Your task to perform on an android device: check the backup settings in the google photos Image 0: 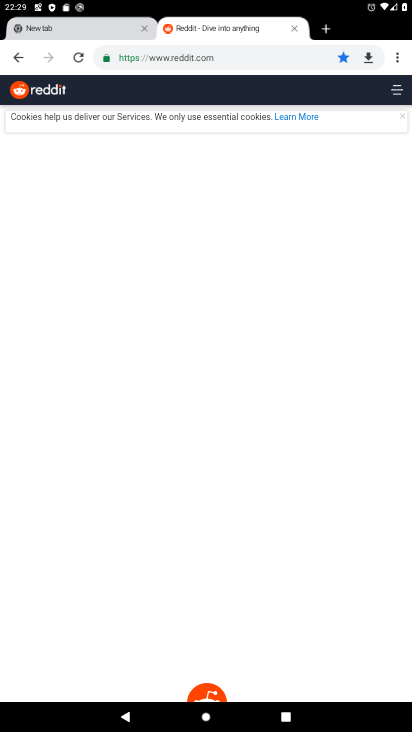
Step 0: drag from (236, 637) to (389, 197)
Your task to perform on an android device: check the backup settings in the google photos Image 1: 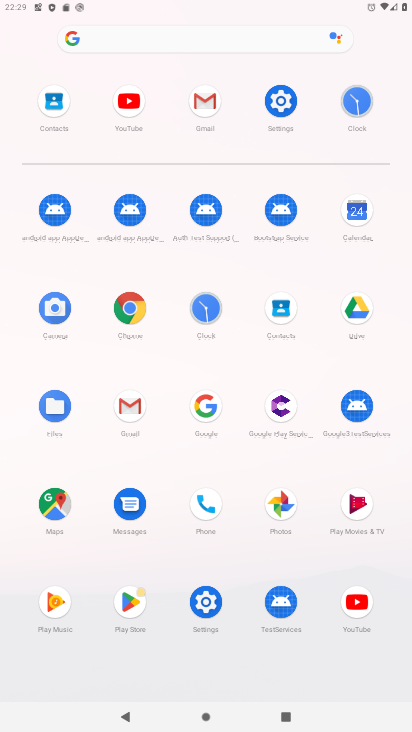
Step 1: click (283, 506)
Your task to perform on an android device: check the backup settings in the google photos Image 2: 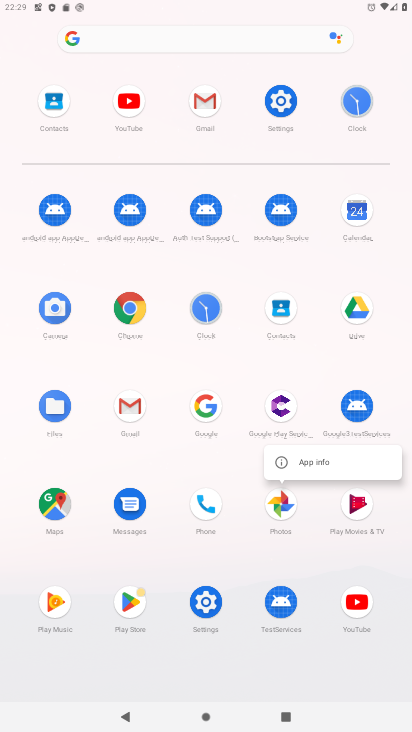
Step 2: click (311, 453)
Your task to perform on an android device: check the backup settings in the google photos Image 3: 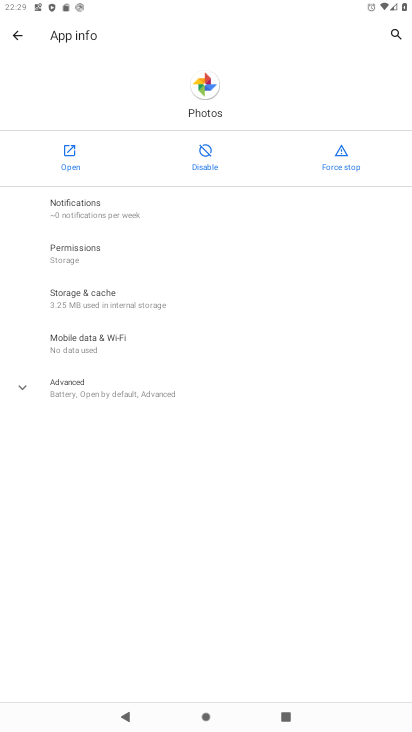
Step 3: click (50, 156)
Your task to perform on an android device: check the backup settings in the google photos Image 4: 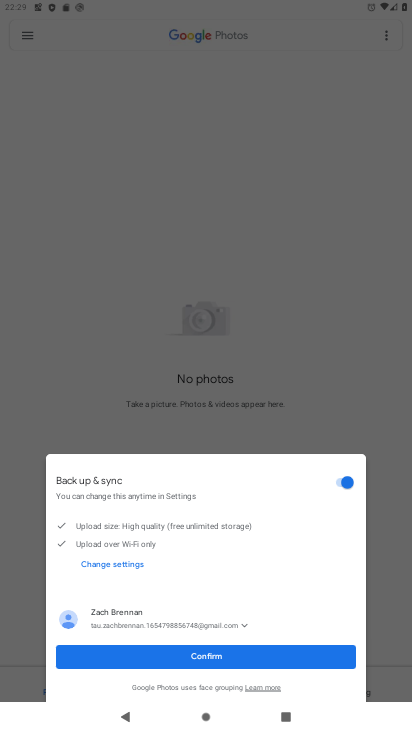
Step 4: click (186, 660)
Your task to perform on an android device: check the backup settings in the google photos Image 5: 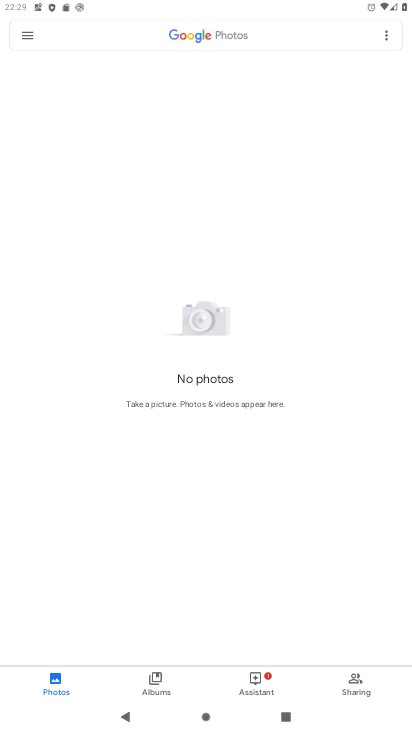
Step 5: drag from (221, 590) to (297, 310)
Your task to perform on an android device: check the backup settings in the google photos Image 6: 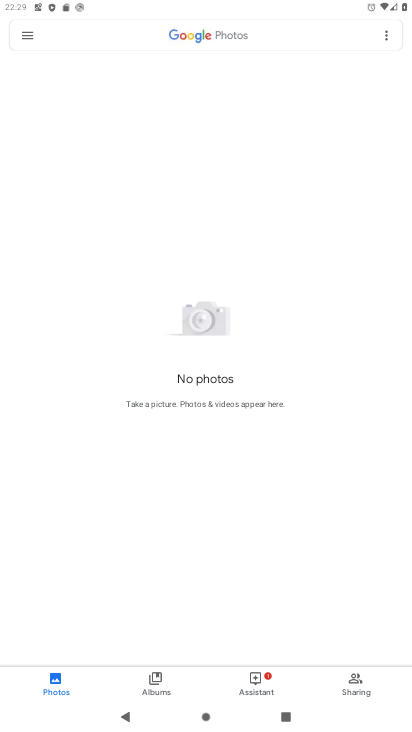
Step 6: drag from (225, 569) to (293, 222)
Your task to perform on an android device: check the backup settings in the google photos Image 7: 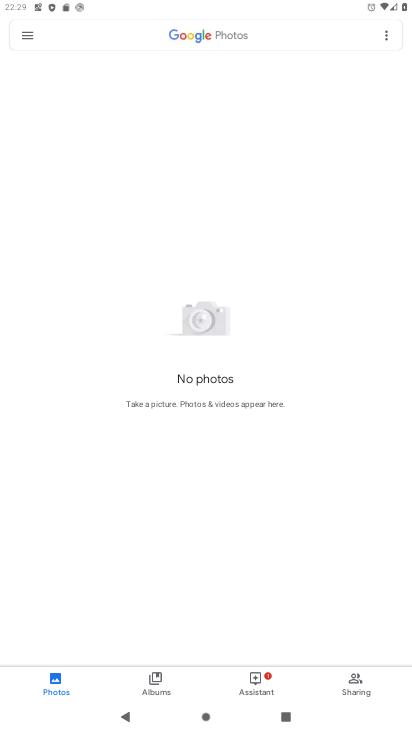
Step 7: click (221, 327)
Your task to perform on an android device: check the backup settings in the google photos Image 8: 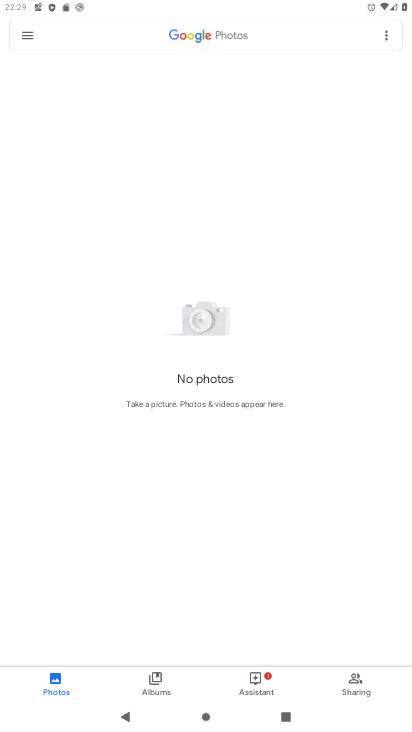
Step 8: click (221, 327)
Your task to perform on an android device: check the backup settings in the google photos Image 9: 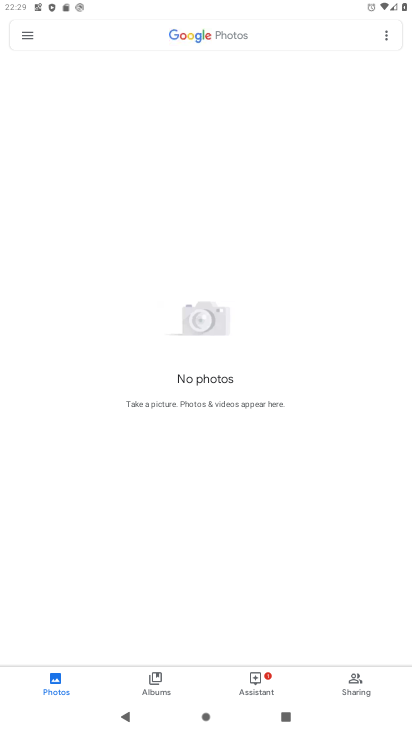
Step 9: drag from (180, 568) to (208, 348)
Your task to perform on an android device: check the backup settings in the google photos Image 10: 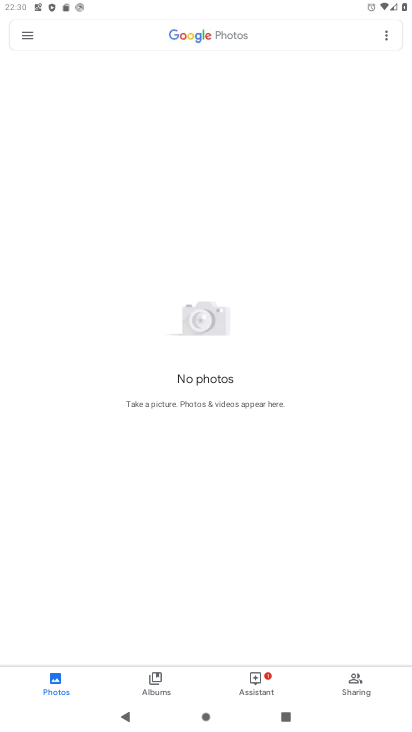
Step 10: click (27, 36)
Your task to perform on an android device: check the backup settings in the google photos Image 11: 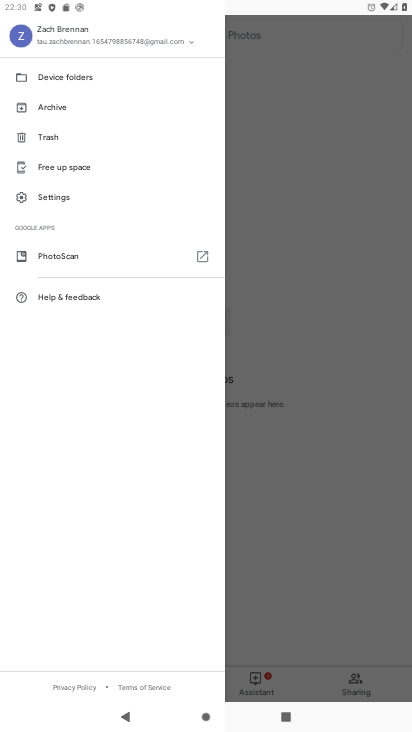
Step 11: click (70, 195)
Your task to perform on an android device: check the backup settings in the google photos Image 12: 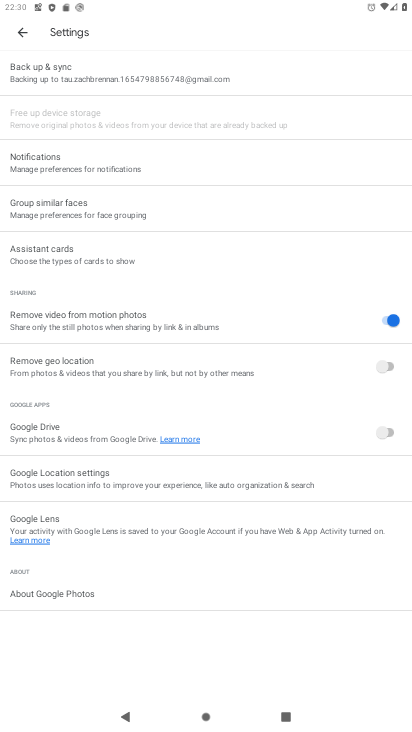
Step 12: drag from (147, 571) to (147, 305)
Your task to perform on an android device: check the backup settings in the google photos Image 13: 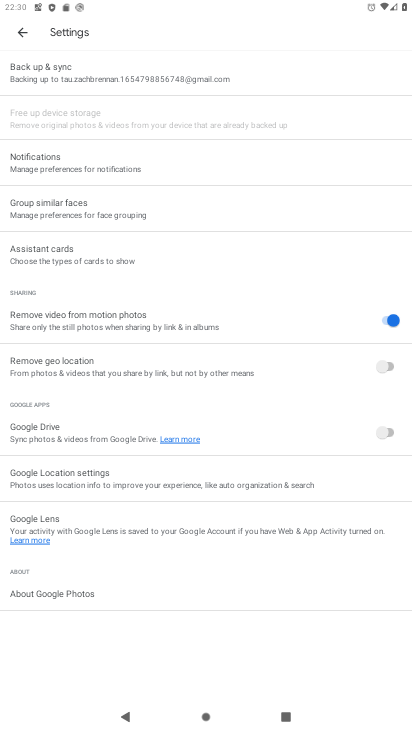
Step 13: drag from (181, 141) to (183, 531)
Your task to perform on an android device: check the backup settings in the google photos Image 14: 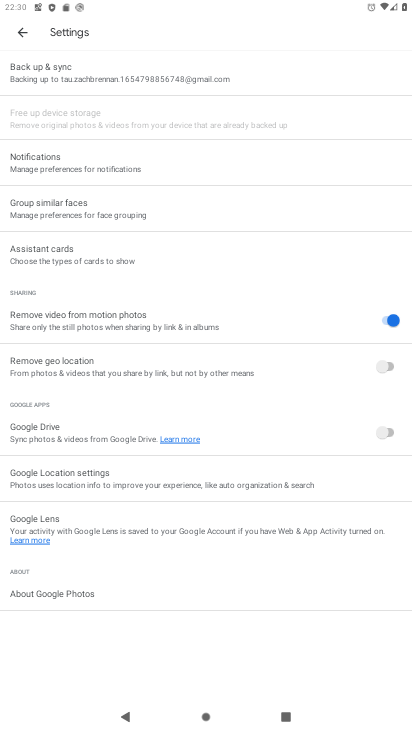
Step 14: click (146, 80)
Your task to perform on an android device: check the backup settings in the google photos Image 15: 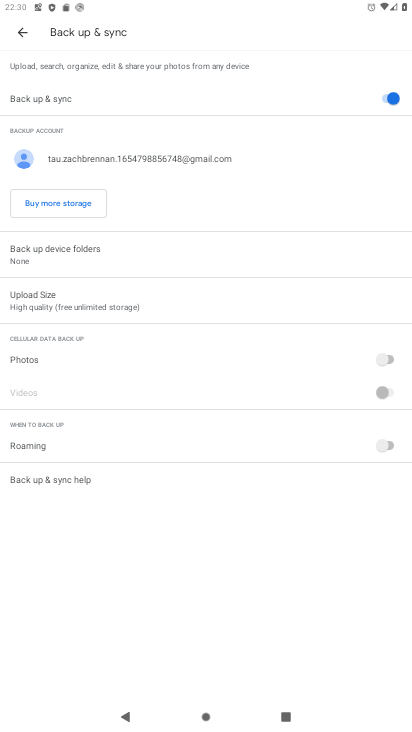
Step 15: drag from (183, 591) to (192, 263)
Your task to perform on an android device: check the backup settings in the google photos Image 16: 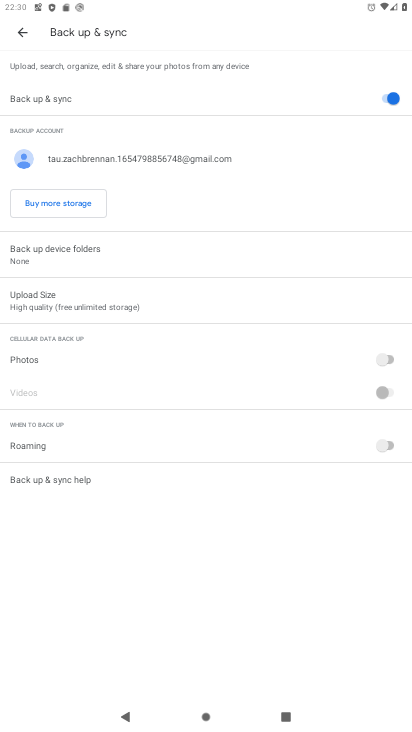
Step 16: drag from (154, 537) to (172, 221)
Your task to perform on an android device: check the backup settings in the google photos Image 17: 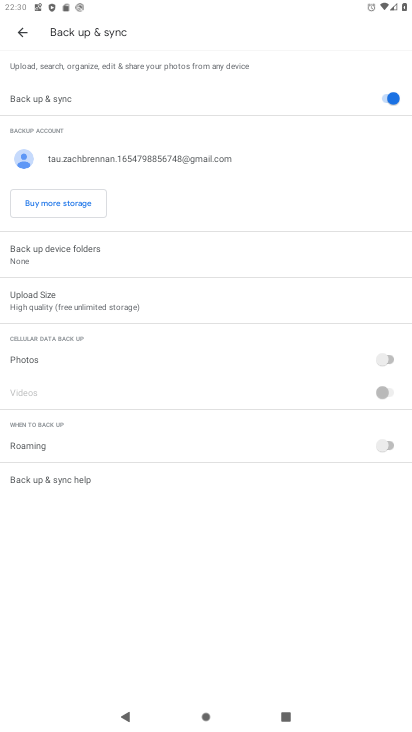
Step 17: click (255, 209)
Your task to perform on an android device: check the backup settings in the google photos Image 18: 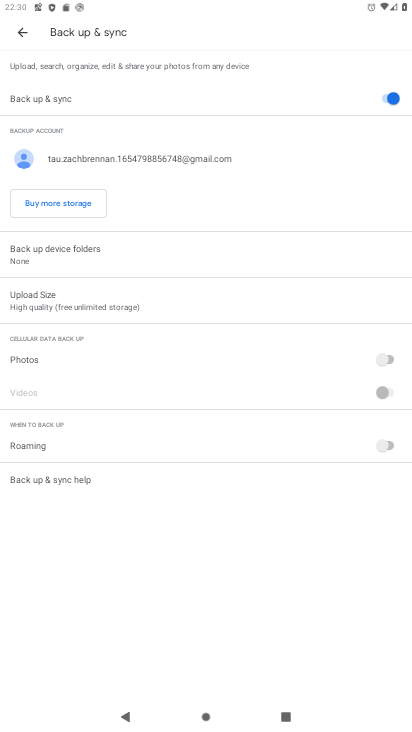
Step 18: click (199, 190)
Your task to perform on an android device: check the backup settings in the google photos Image 19: 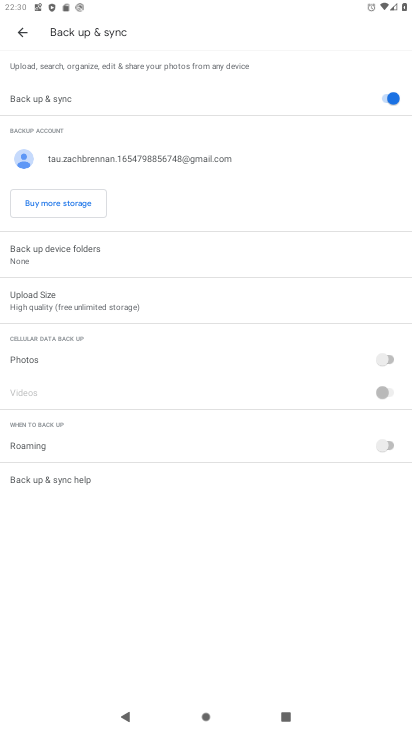
Step 19: task complete